Your task to perform on an android device: change the upload size in google photos Image 0: 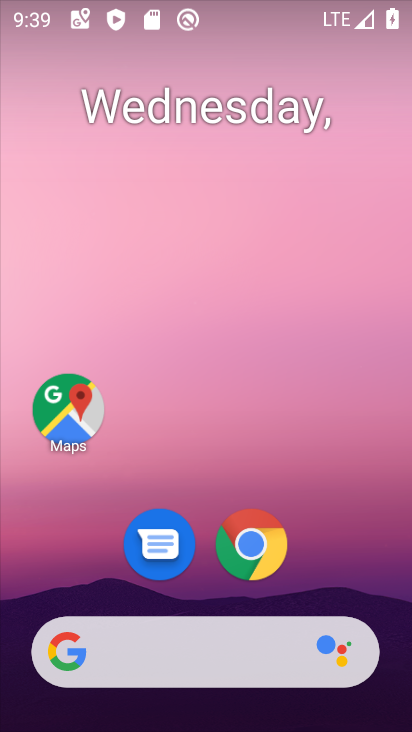
Step 0: drag from (192, 599) to (195, 34)
Your task to perform on an android device: change the upload size in google photos Image 1: 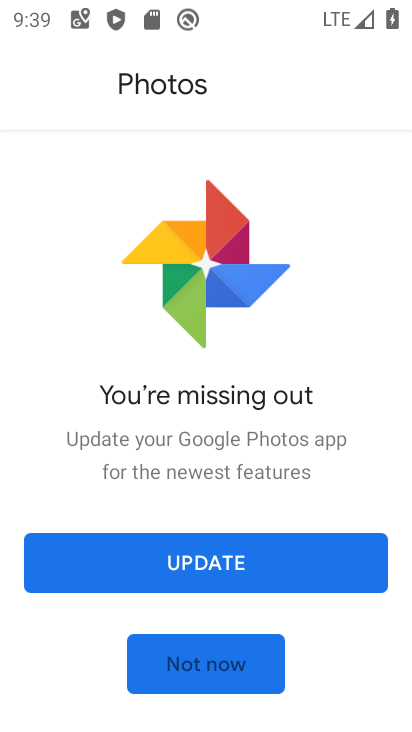
Step 1: click (169, 651)
Your task to perform on an android device: change the upload size in google photos Image 2: 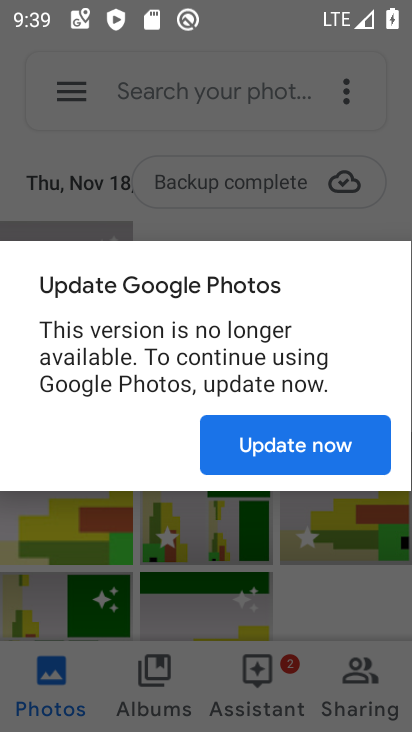
Step 2: click (298, 457)
Your task to perform on an android device: change the upload size in google photos Image 3: 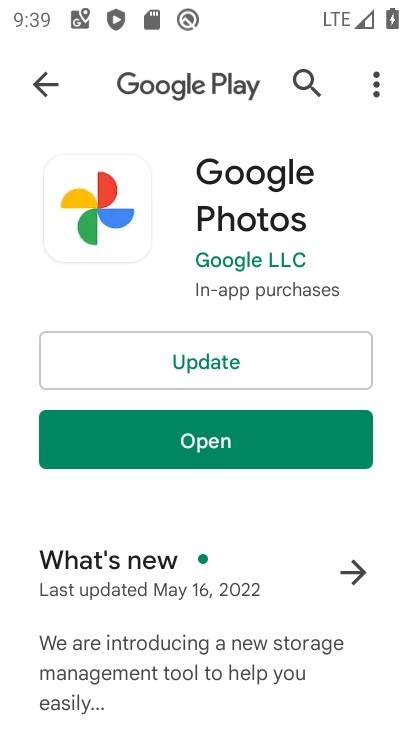
Step 3: click (242, 453)
Your task to perform on an android device: change the upload size in google photos Image 4: 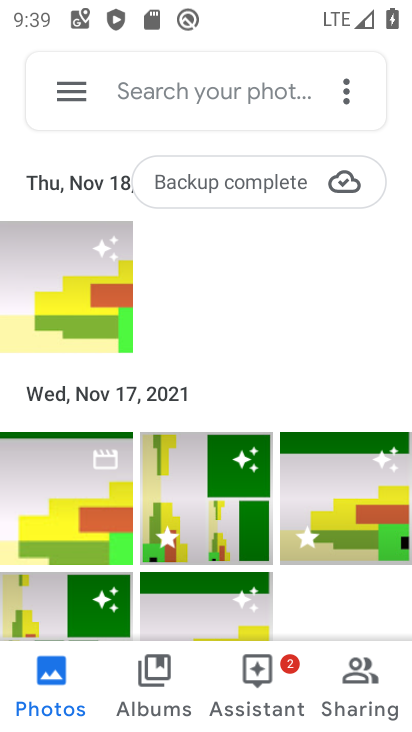
Step 4: click (76, 74)
Your task to perform on an android device: change the upload size in google photos Image 5: 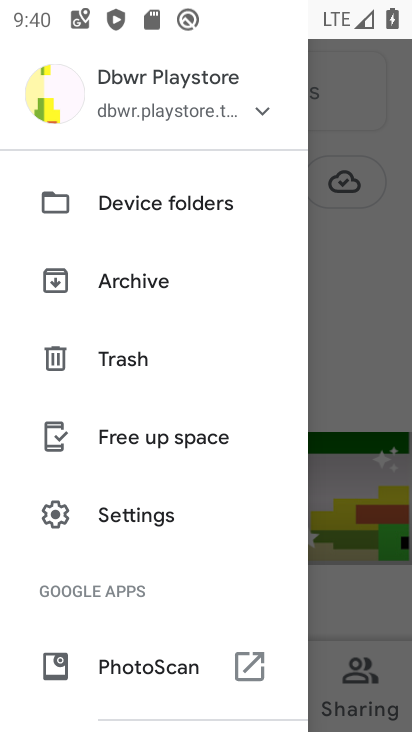
Step 5: click (73, 519)
Your task to perform on an android device: change the upload size in google photos Image 6: 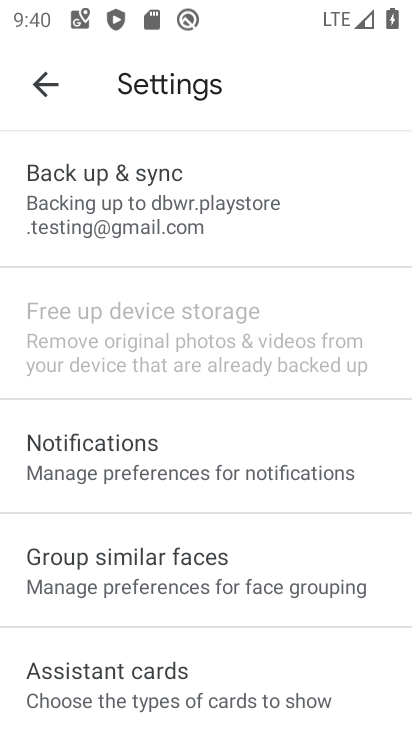
Step 6: click (244, 196)
Your task to perform on an android device: change the upload size in google photos Image 7: 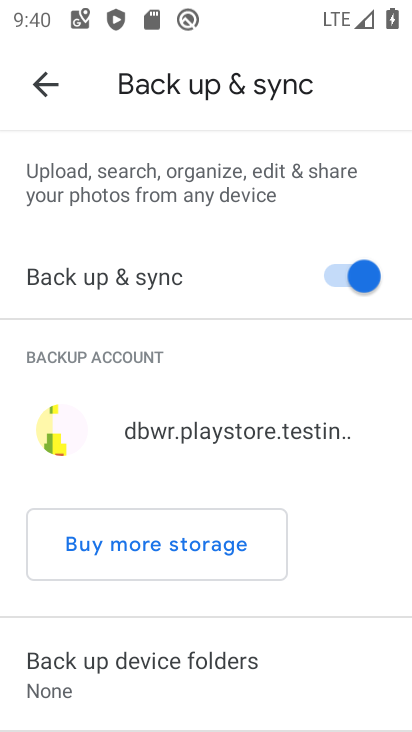
Step 7: drag from (156, 711) to (235, 239)
Your task to perform on an android device: change the upload size in google photos Image 8: 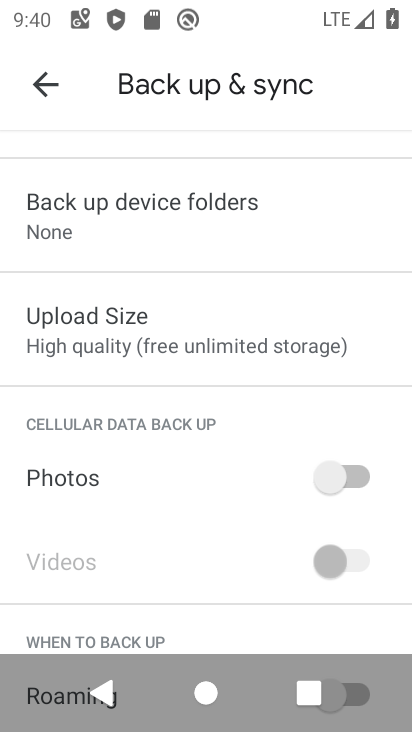
Step 8: click (131, 326)
Your task to perform on an android device: change the upload size in google photos Image 9: 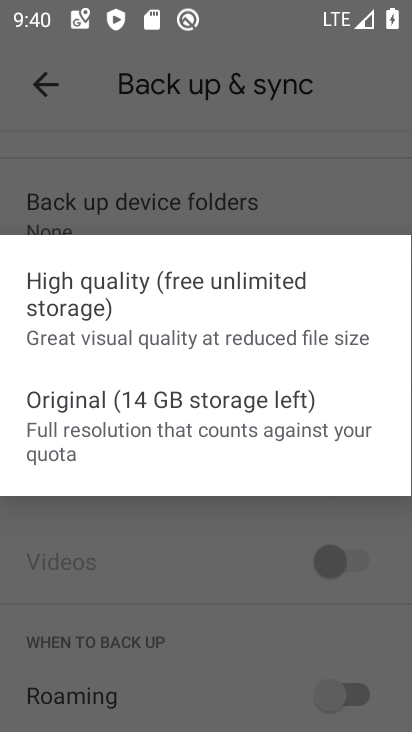
Step 9: click (163, 419)
Your task to perform on an android device: change the upload size in google photos Image 10: 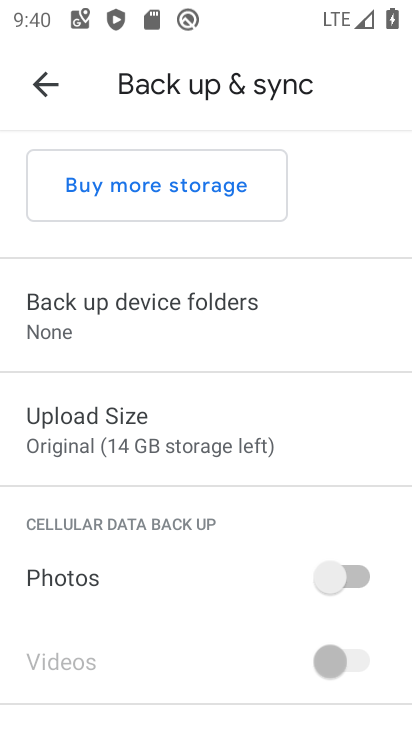
Step 10: task complete